Your task to perform on an android device: Open settings on Google Maps Image 0: 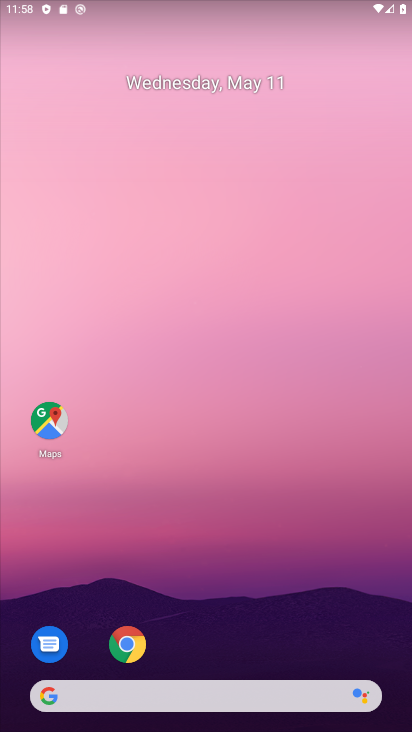
Step 0: drag from (255, 583) to (181, 129)
Your task to perform on an android device: Open settings on Google Maps Image 1: 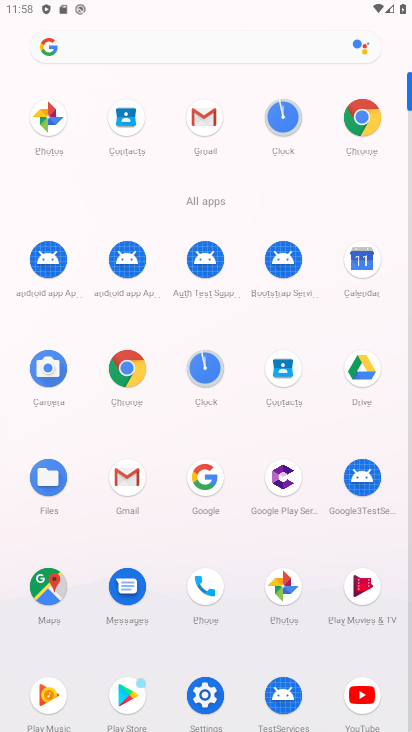
Step 1: click (43, 601)
Your task to perform on an android device: Open settings on Google Maps Image 2: 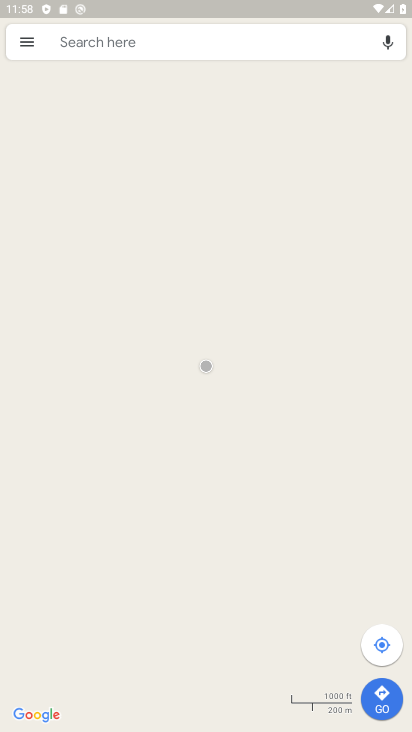
Step 2: click (22, 40)
Your task to perform on an android device: Open settings on Google Maps Image 3: 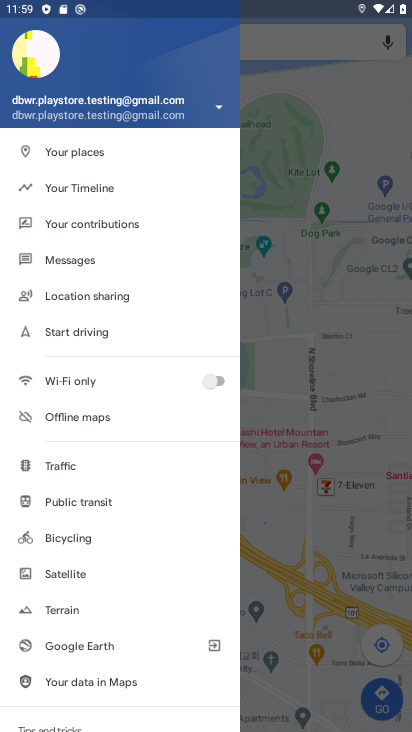
Step 3: drag from (165, 635) to (108, 272)
Your task to perform on an android device: Open settings on Google Maps Image 4: 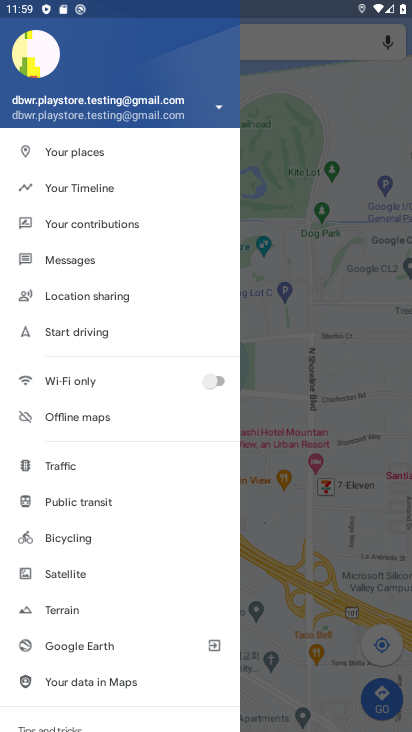
Step 4: drag from (88, 595) to (99, 266)
Your task to perform on an android device: Open settings on Google Maps Image 5: 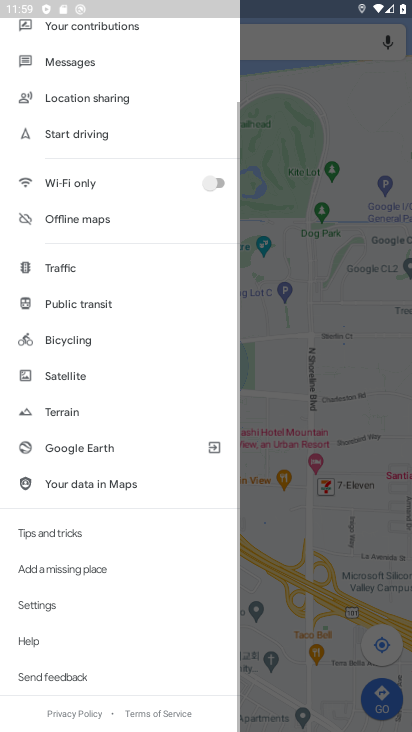
Step 5: click (42, 607)
Your task to perform on an android device: Open settings on Google Maps Image 6: 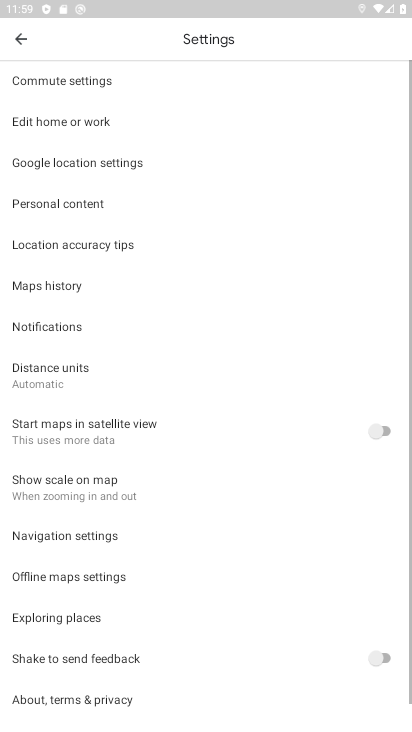
Step 6: task complete